Your task to perform on an android device: Add "lenovo thinkpad" to the cart on walmart, then select checkout. Image 0: 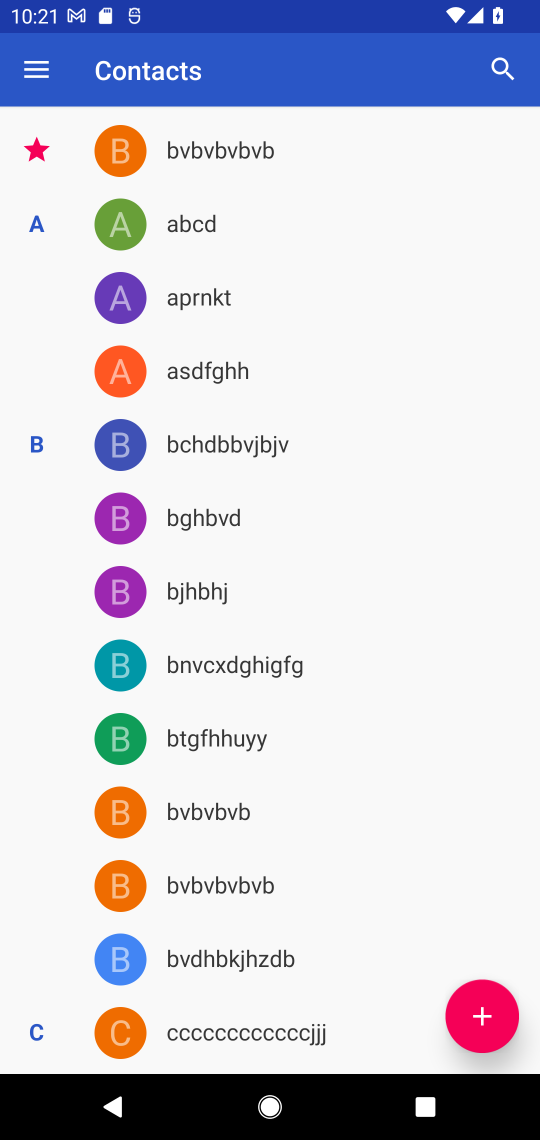
Step 0: press home button
Your task to perform on an android device: Add "lenovo thinkpad" to the cart on walmart, then select checkout. Image 1: 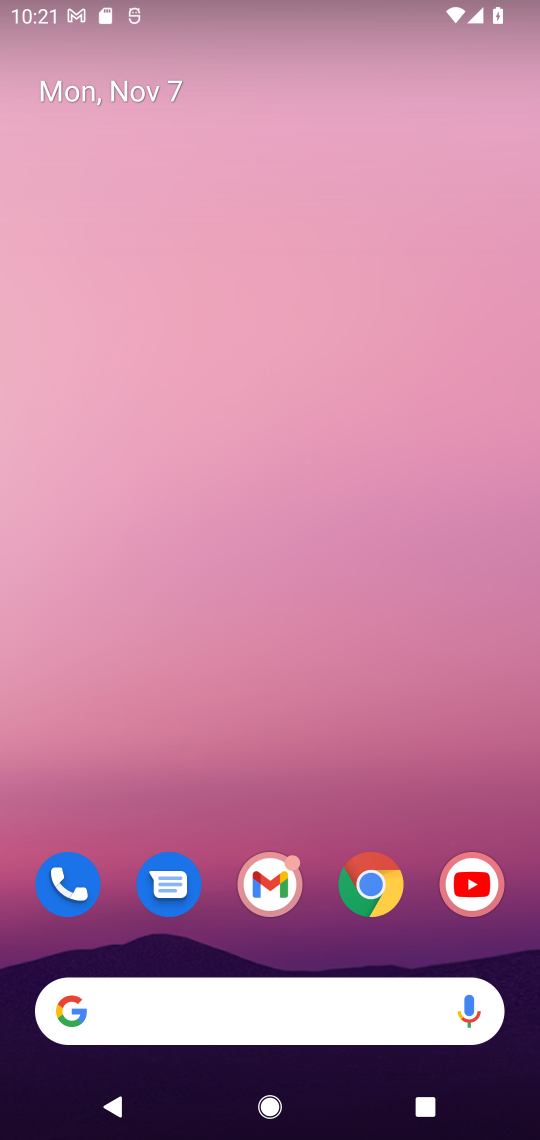
Step 1: click (375, 880)
Your task to perform on an android device: Add "lenovo thinkpad" to the cart on walmart, then select checkout. Image 2: 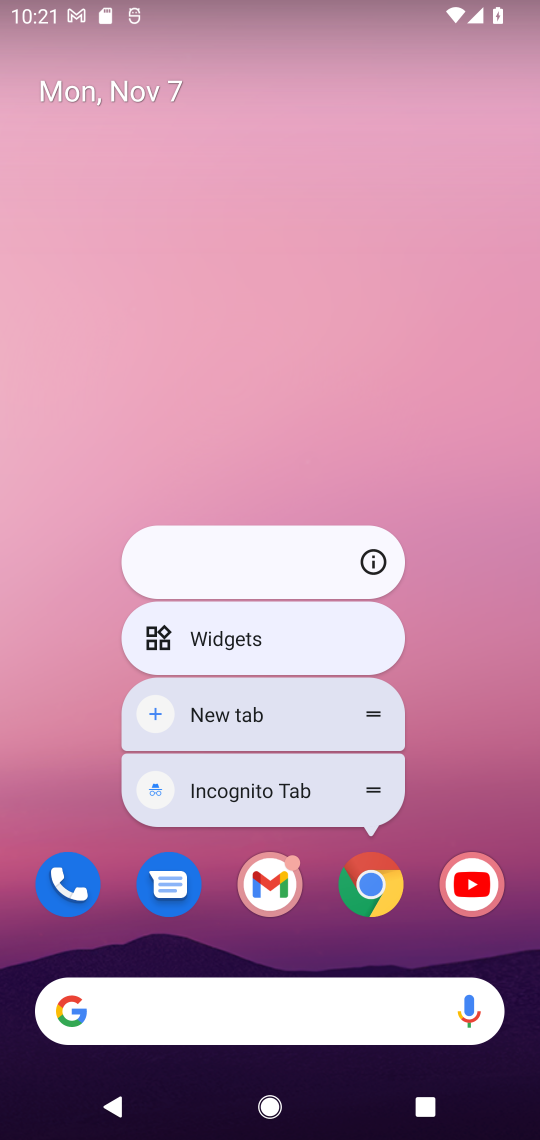
Step 2: click (375, 880)
Your task to perform on an android device: Add "lenovo thinkpad" to the cart on walmart, then select checkout. Image 3: 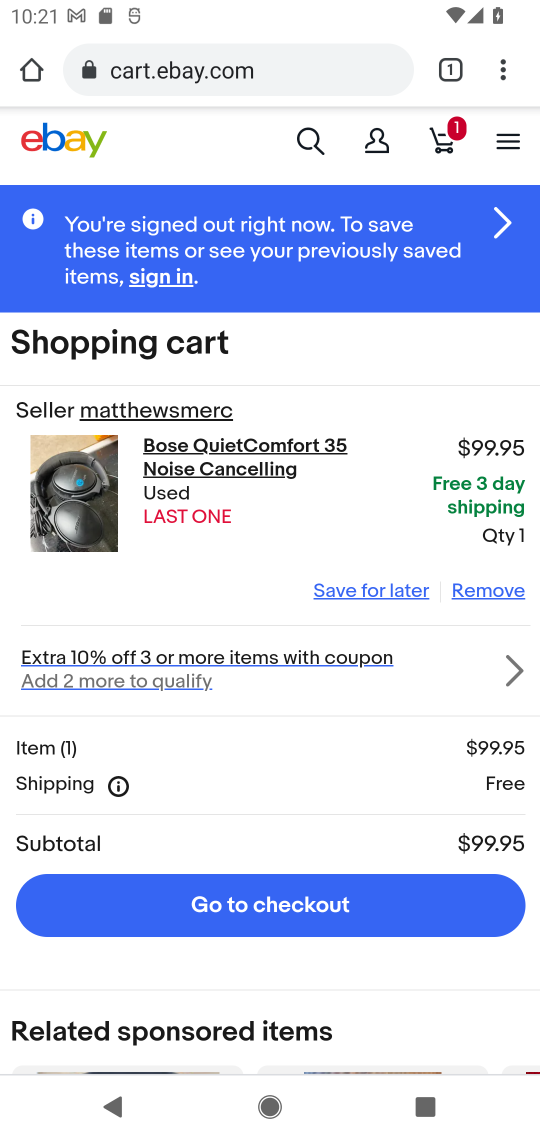
Step 3: click (25, 79)
Your task to perform on an android device: Add "lenovo thinkpad" to the cart on walmart, then select checkout. Image 4: 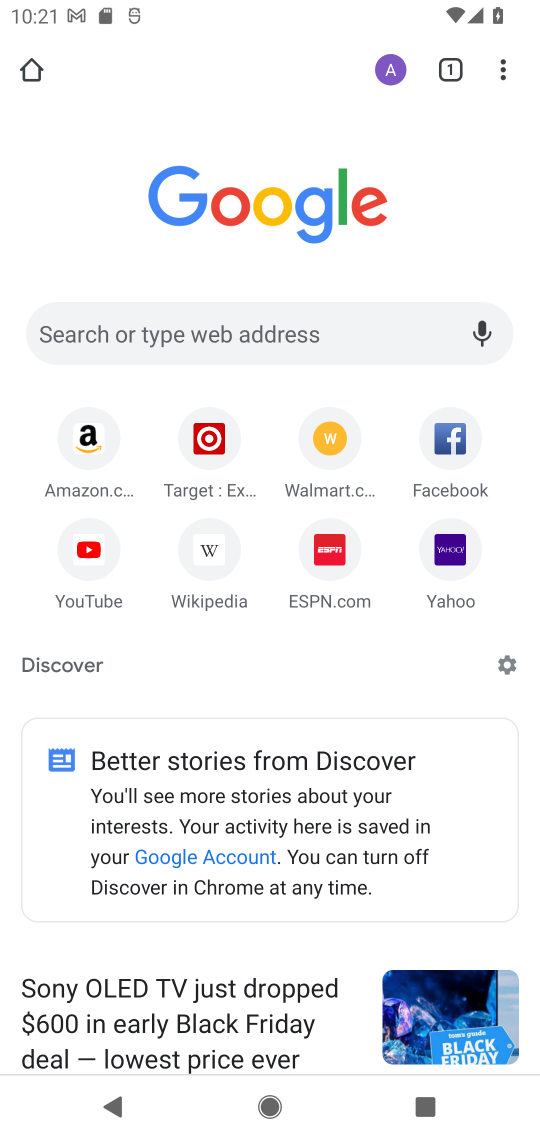
Step 4: click (393, 325)
Your task to perform on an android device: Add "lenovo thinkpad" to the cart on walmart, then select checkout. Image 5: 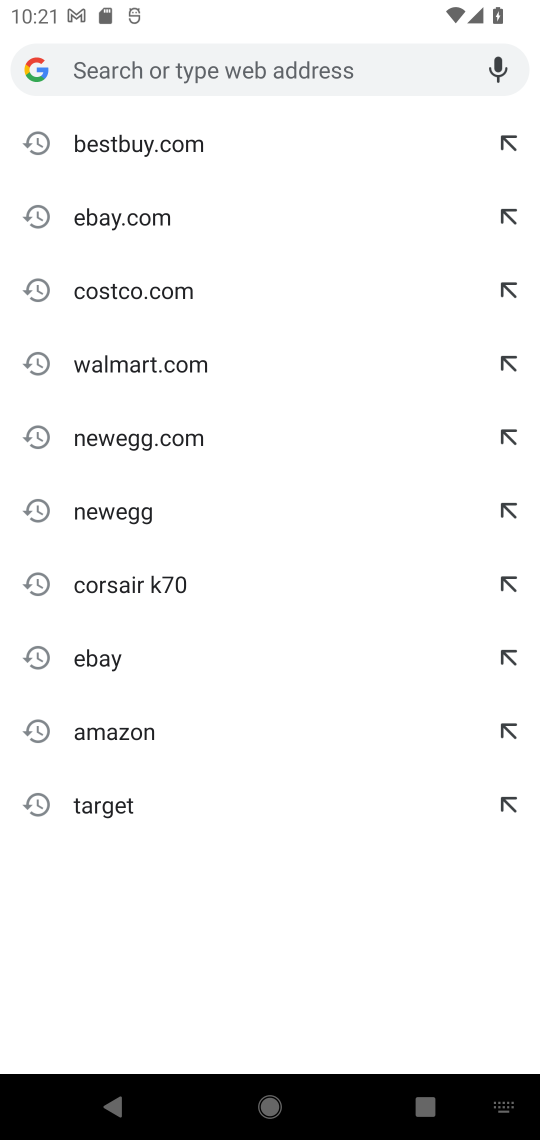
Step 5: click (125, 361)
Your task to perform on an android device: Add "lenovo thinkpad" to the cart on walmart, then select checkout. Image 6: 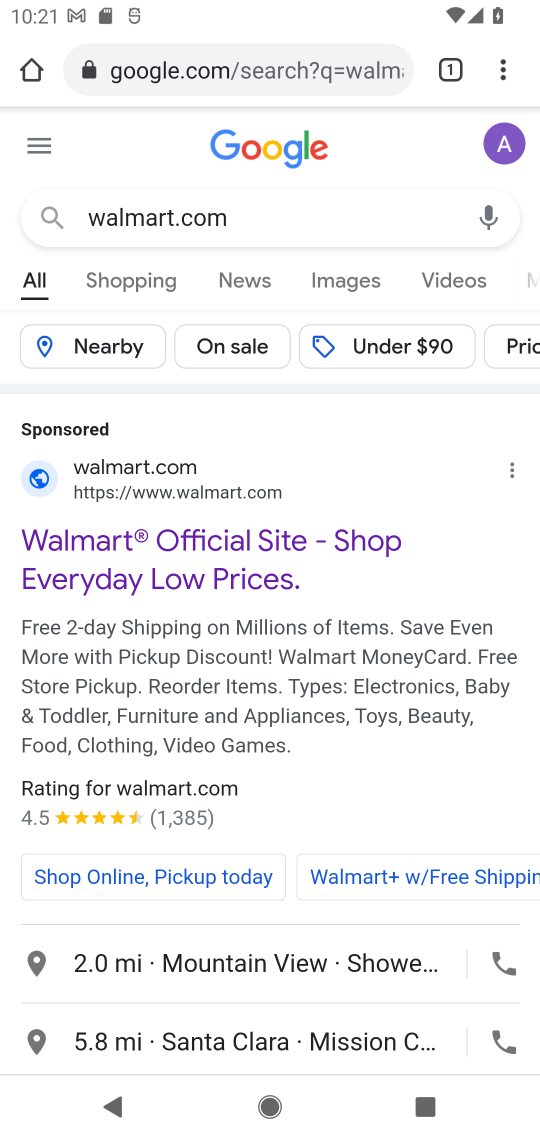
Step 6: click (216, 495)
Your task to perform on an android device: Add "lenovo thinkpad" to the cart on walmart, then select checkout. Image 7: 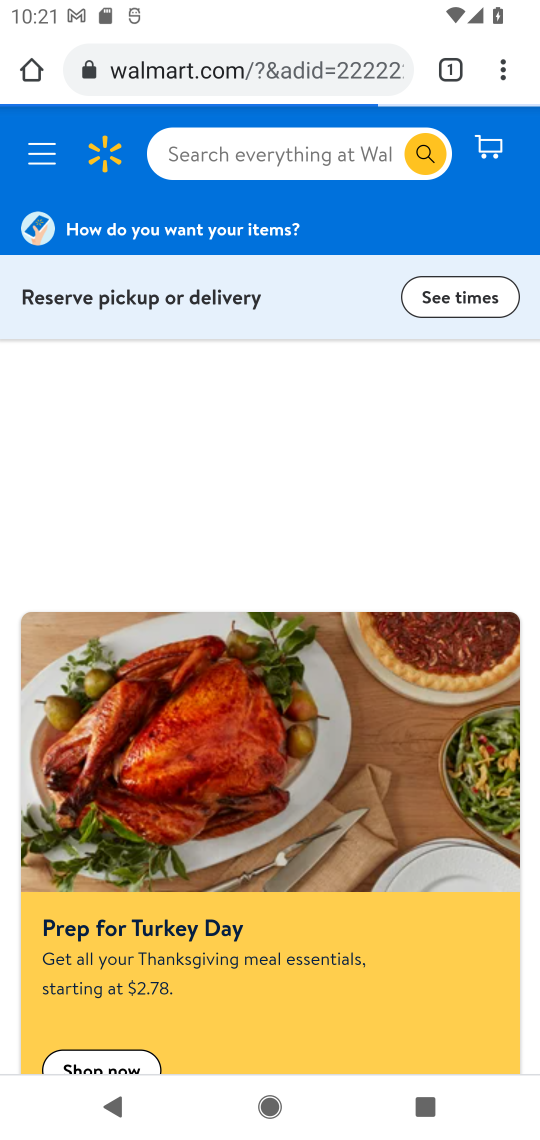
Step 7: click (278, 141)
Your task to perform on an android device: Add "lenovo thinkpad" to the cart on walmart, then select checkout. Image 8: 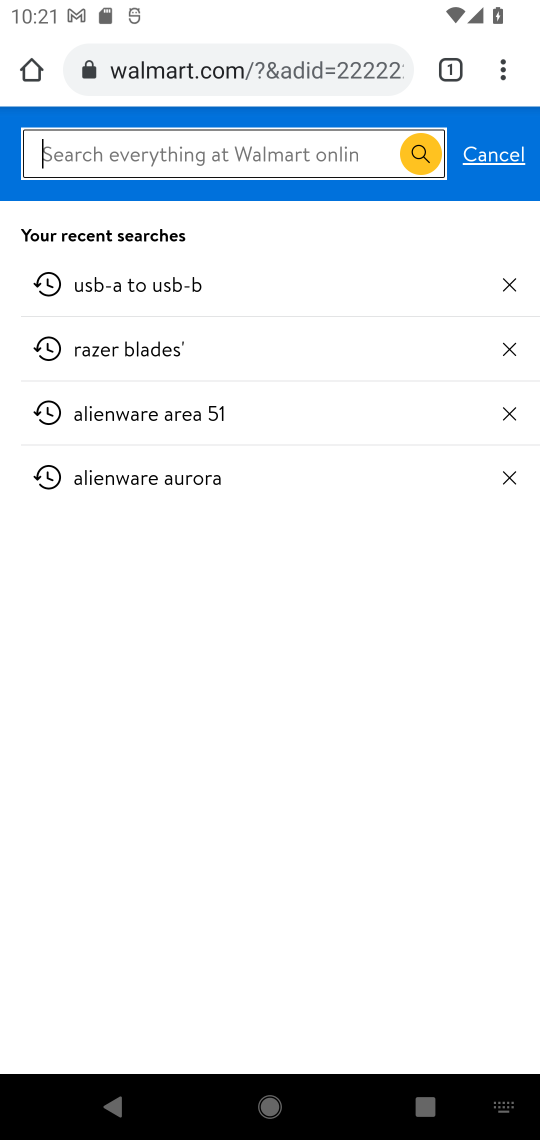
Step 8: type "lenovo thinkpad"
Your task to perform on an android device: Add "lenovo thinkpad" to the cart on walmart, then select checkout. Image 9: 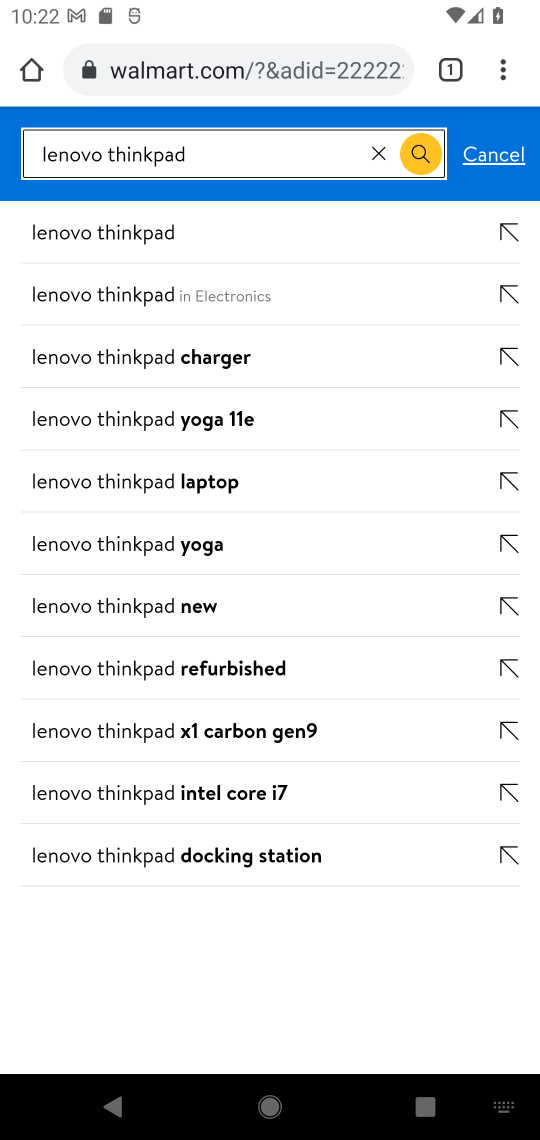
Step 9: click (133, 230)
Your task to perform on an android device: Add "lenovo thinkpad" to the cart on walmart, then select checkout. Image 10: 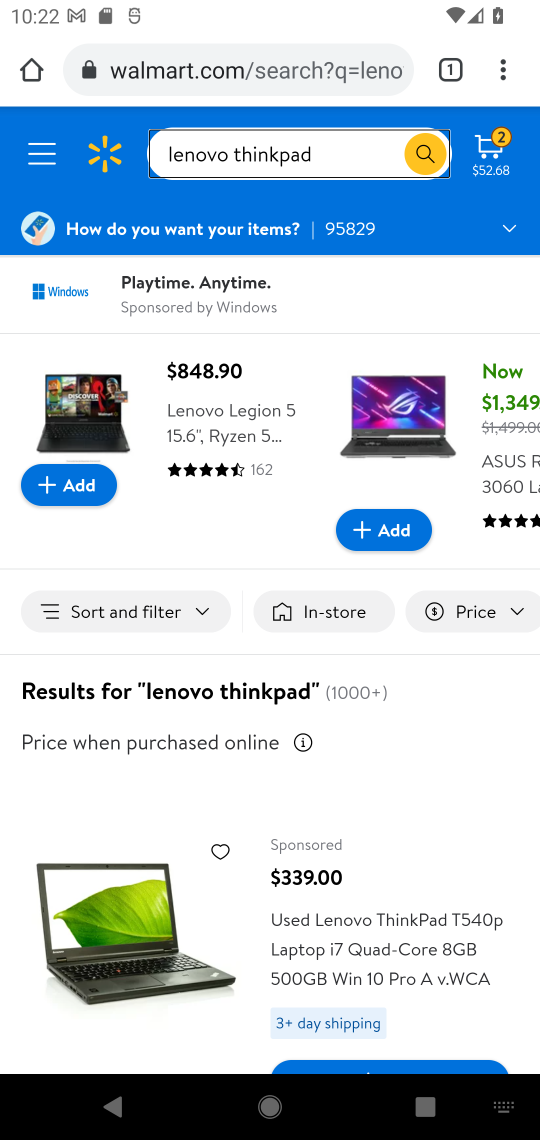
Step 10: drag from (461, 827) to (444, 502)
Your task to perform on an android device: Add "lenovo thinkpad" to the cart on walmart, then select checkout. Image 11: 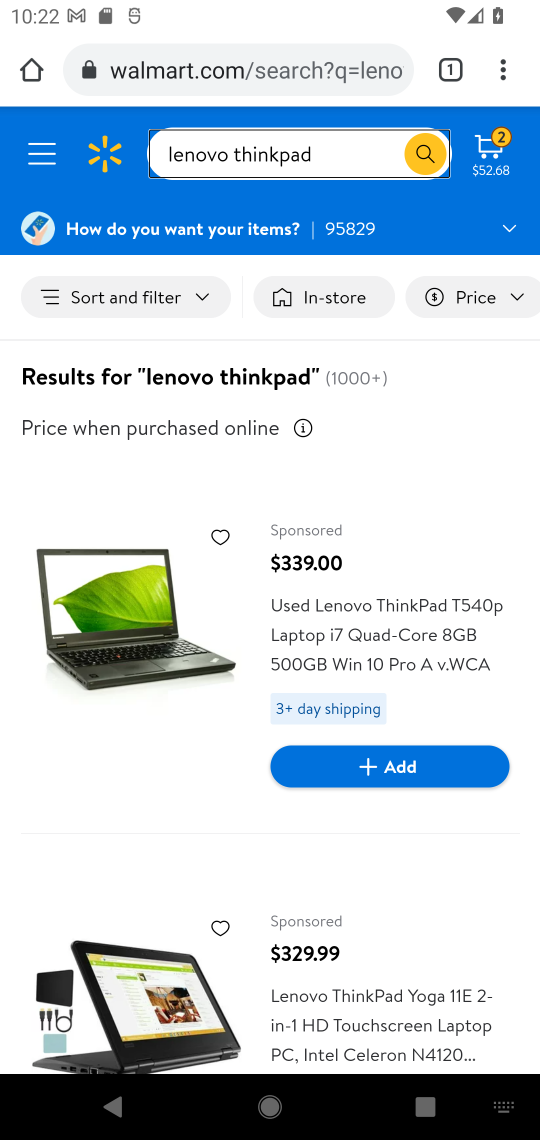
Step 11: click (150, 991)
Your task to perform on an android device: Add "lenovo thinkpad" to the cart on walmart, then select checkout. Image 12: 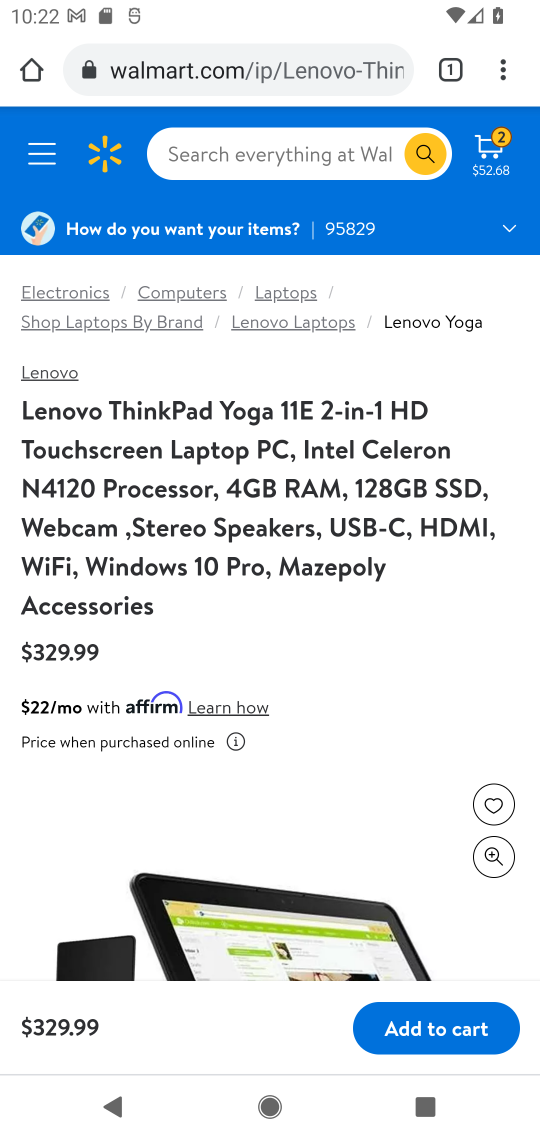
Step 12: click (416, 1028)
Your task to perform on an android device: Add "lenovo thinkpad" to the cart on walmart, then select checkout. Image 13: 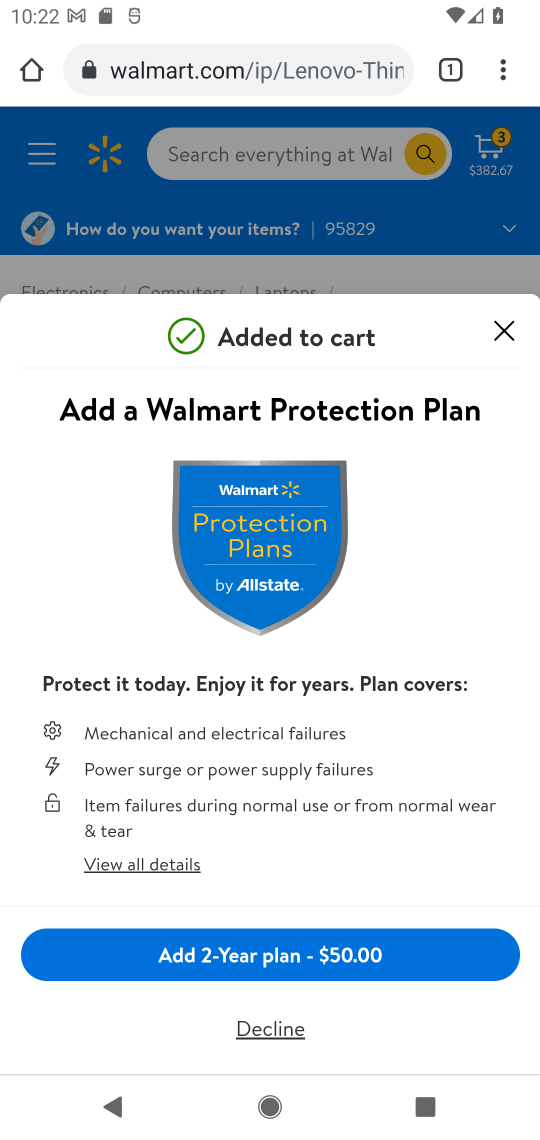
Step 13: click (500, 331)
Your task to perform on an android device: Add "lenovo thinkpad" to the cart on walmart, then select checkout. Image 14: 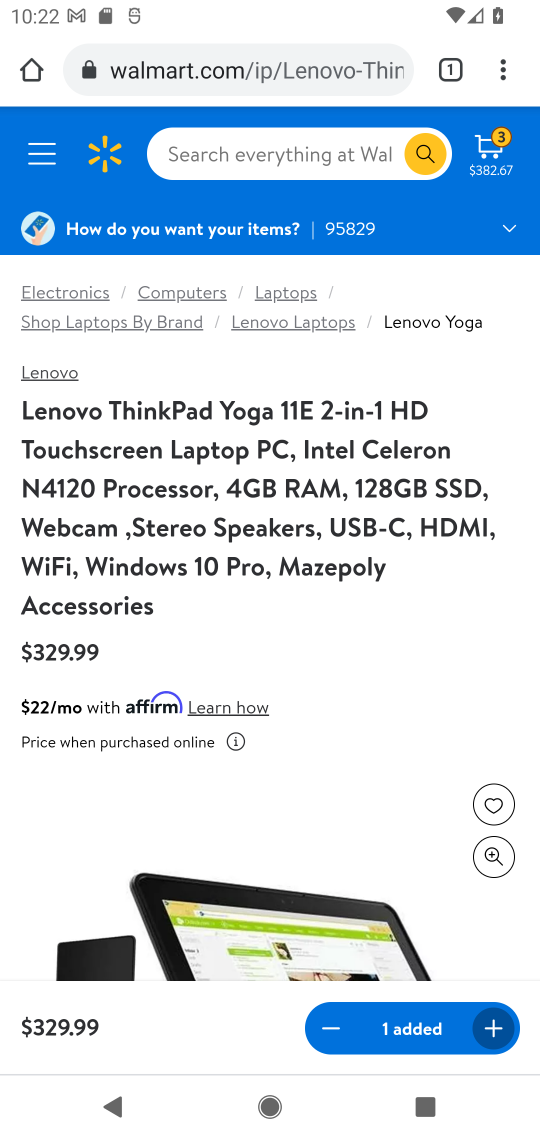
Step 14: click (492, 162)
Your task to perform on an android device: Add "lenovo thinkpad" to the cart on walmart, then select checkout. Image 15: 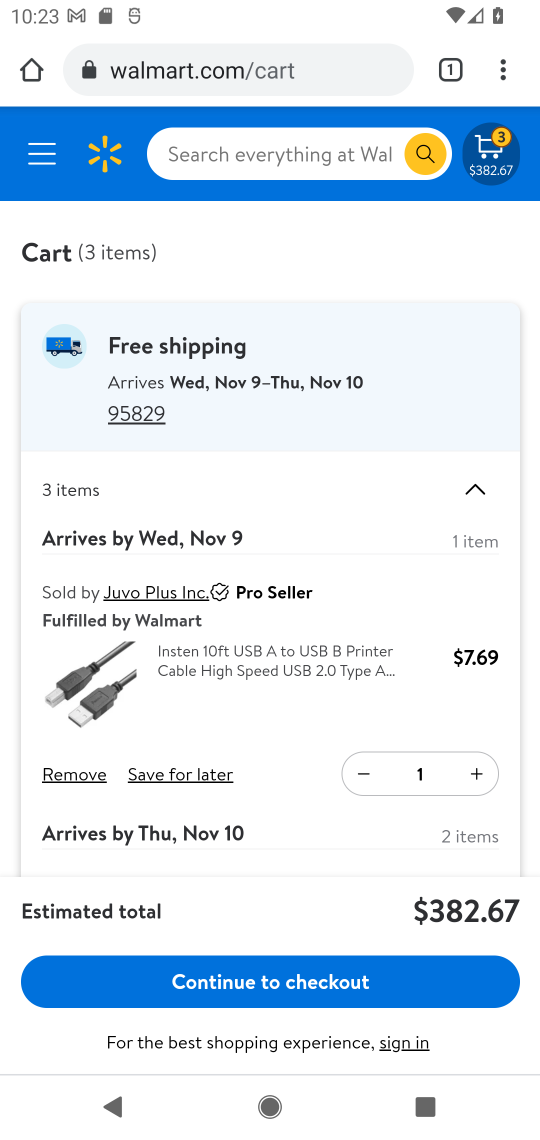
Step 15: click (320, 968)
Your task to perform on an android device: Add "lenovo thinkpad" to the cart on walmart, then select checkout. Image 16: 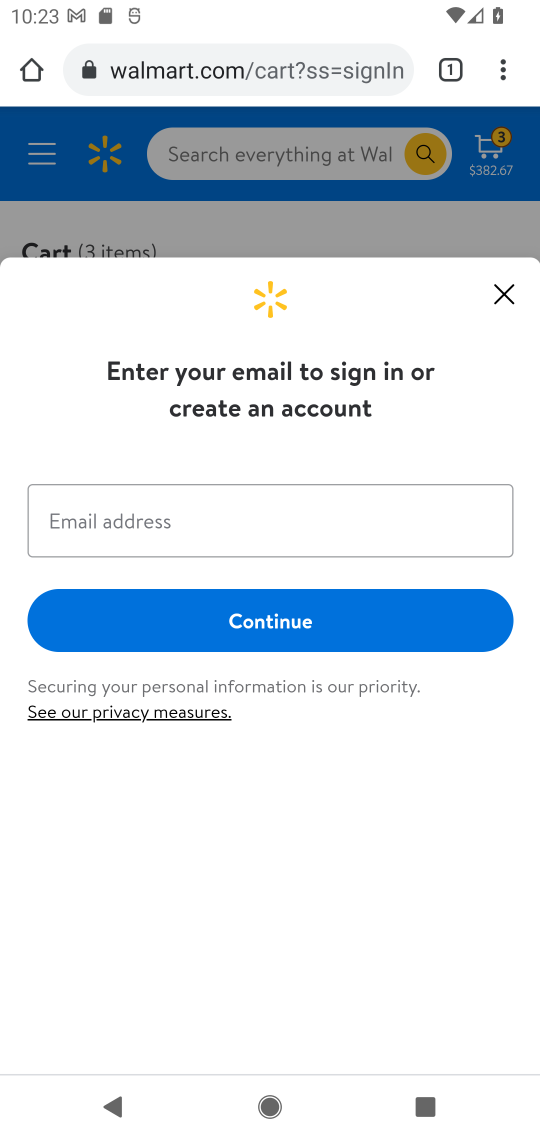
Step 16: task complete